Your task to perform on an android device: set default search engine in the chrome app Image 0: 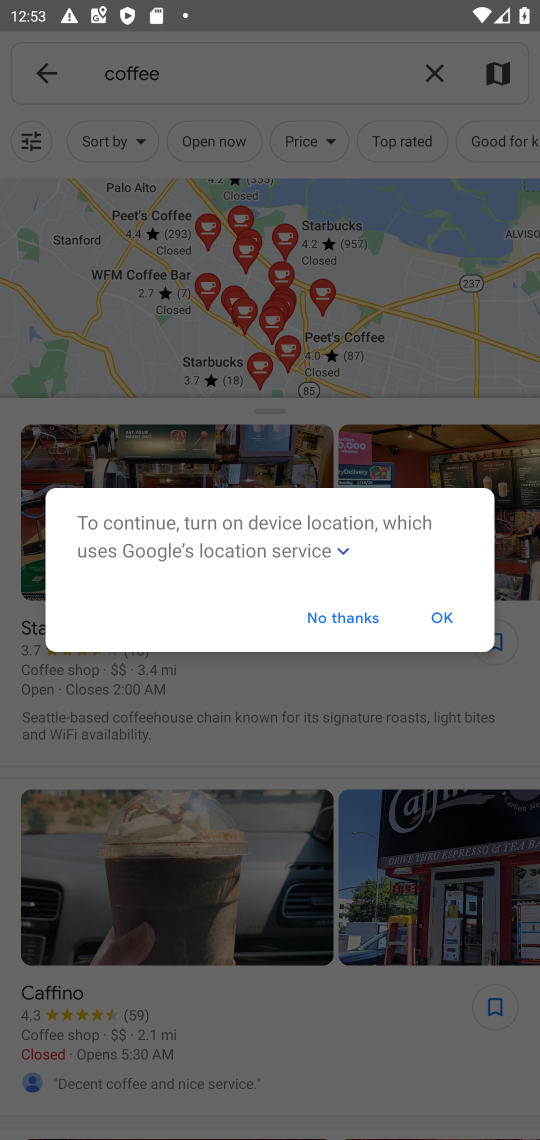
Step 0: press home button
Your task to perform on an android device: set default search engine in the chrome app Image 1: 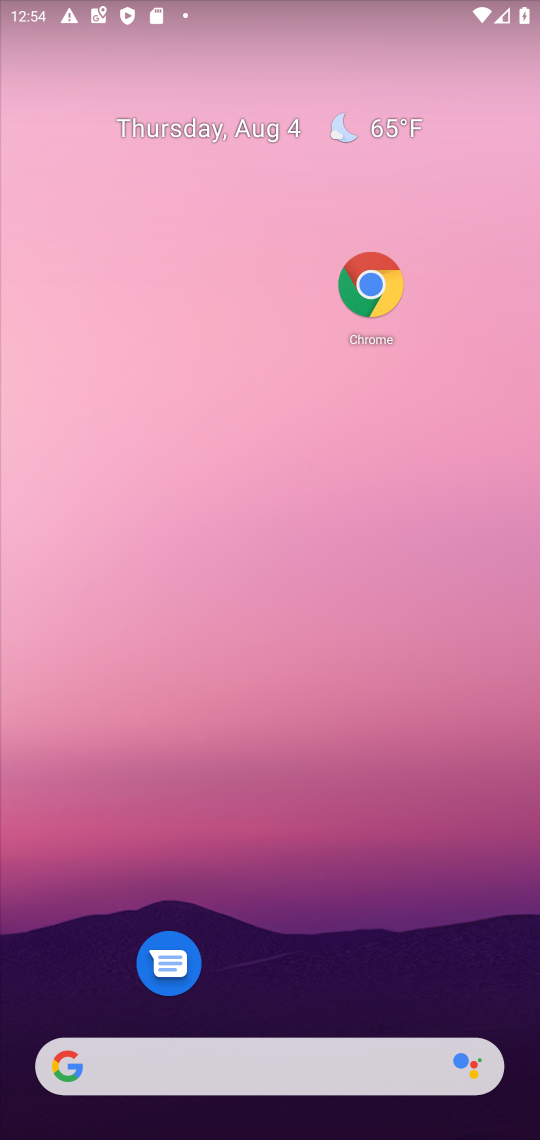
Step 1: drag from (182, 984) to (217, 372)
Your task to perform on an android device: set default search engine in the chrome app Image 2: 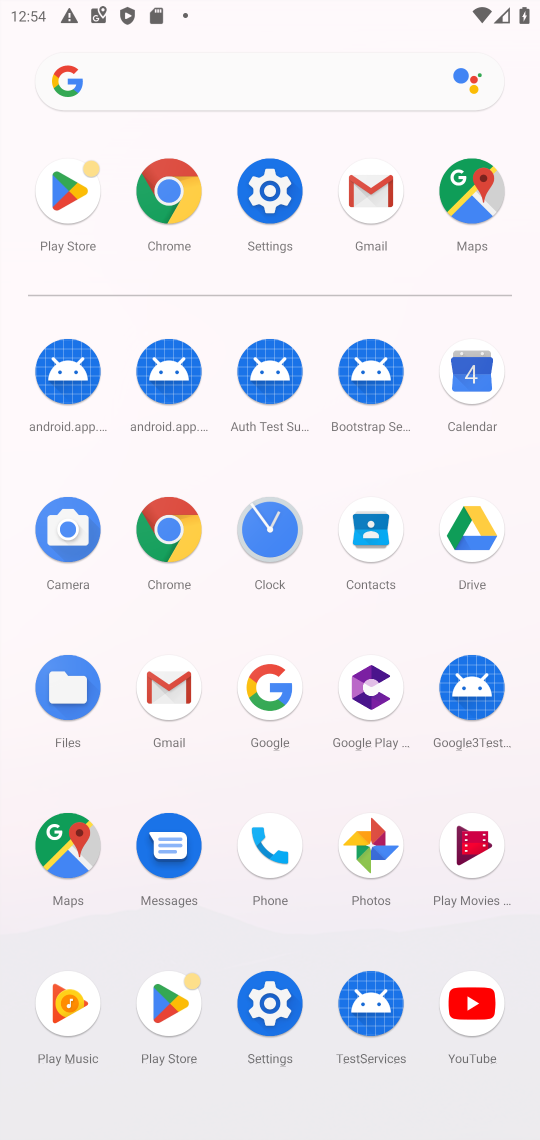
Step 2: click (195, 535)
Your task to perform on an android device: set default search engine in the chrome app Image 3: 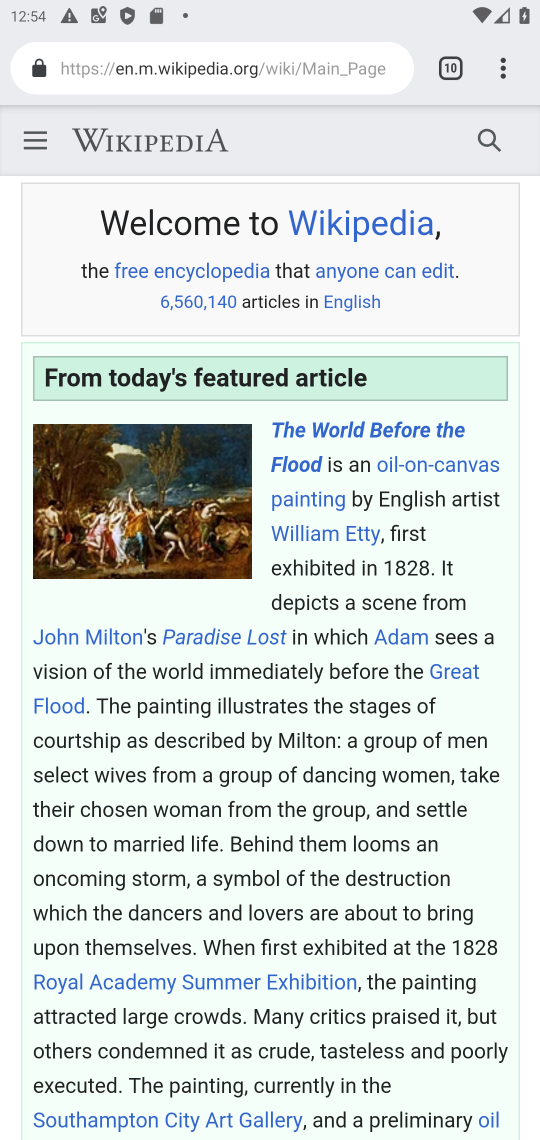
Step 3: click (494, 63)
Your task to perform on an android device: set default search engine in the chrome app Image 4: 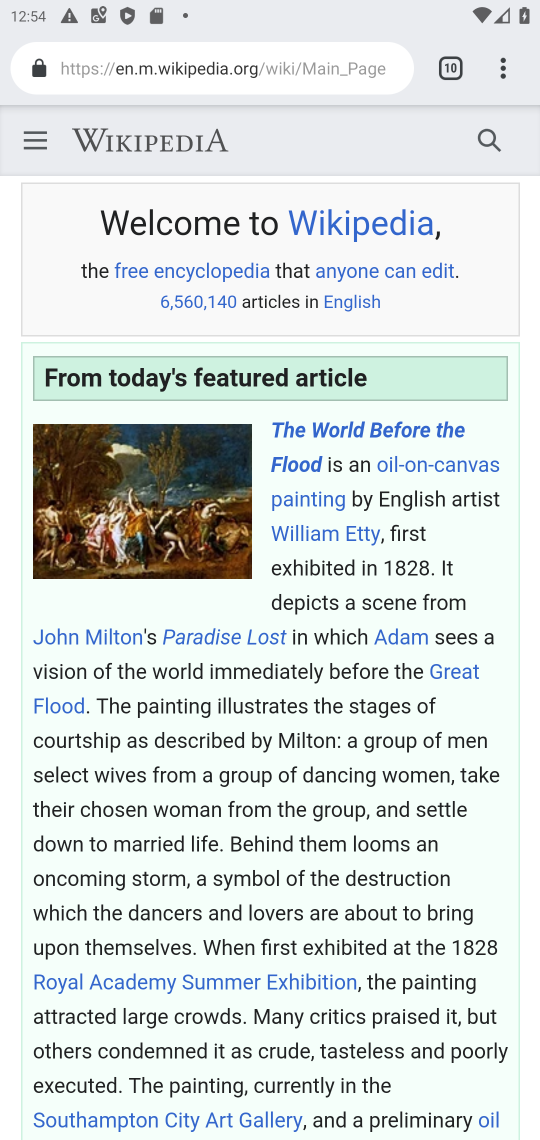
Step 4: click (495, 75)
Your task to perform on an android device: set default search engine in the chrome app Image 5: 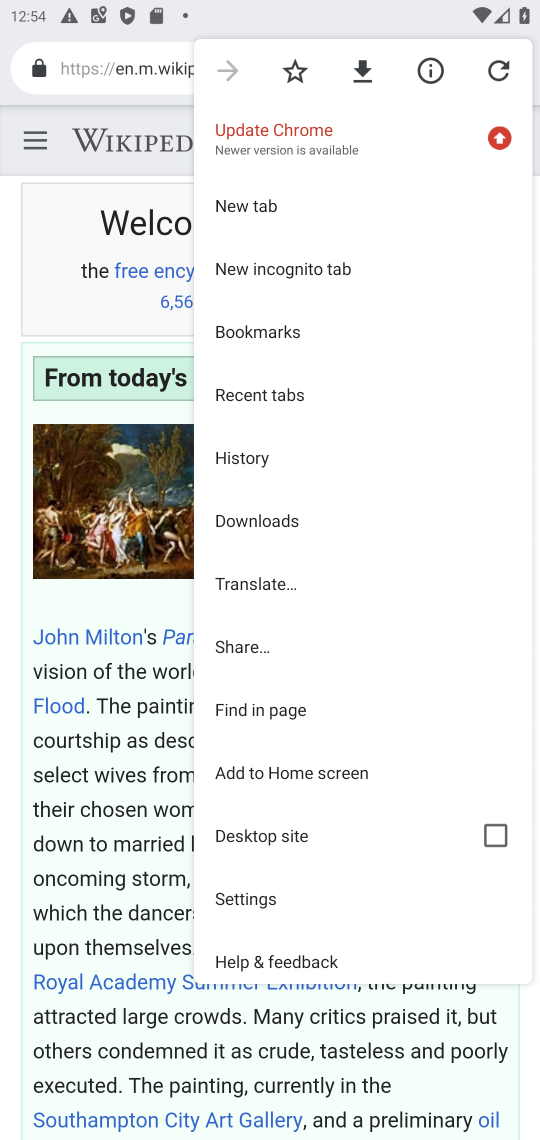
Step 5: click (272, 904)
Your task to perform on an android device: set default search engine in the chrome app Image 6: 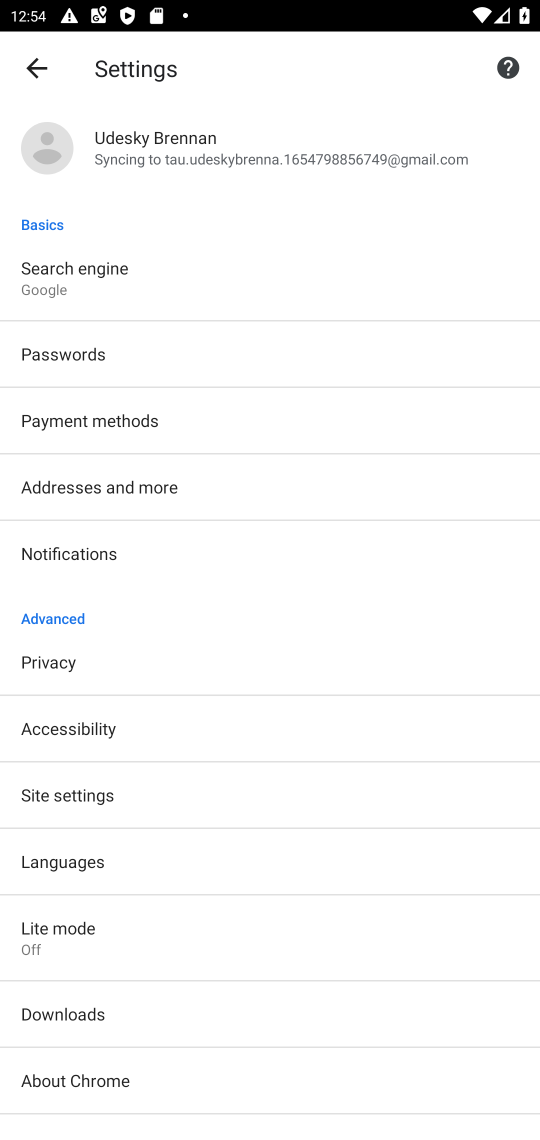
Step 6: click (84, 287)
Your task to perform on an android device: set default search engine in the chrome app Image 7: 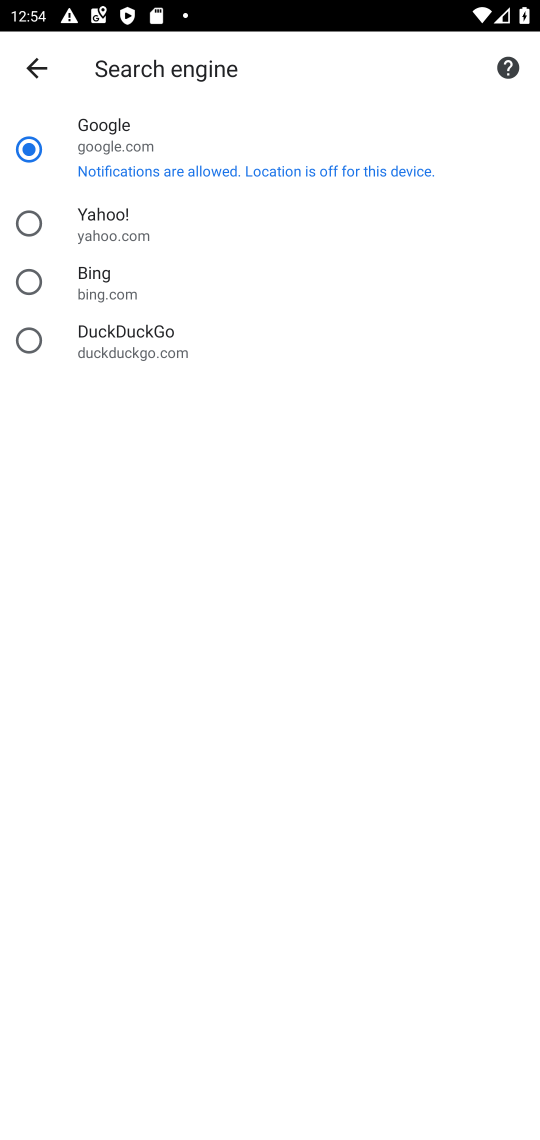
Step 7: click (101, 215)
Your task to perform on an android device: set default search engine in the chrome app Image 8: 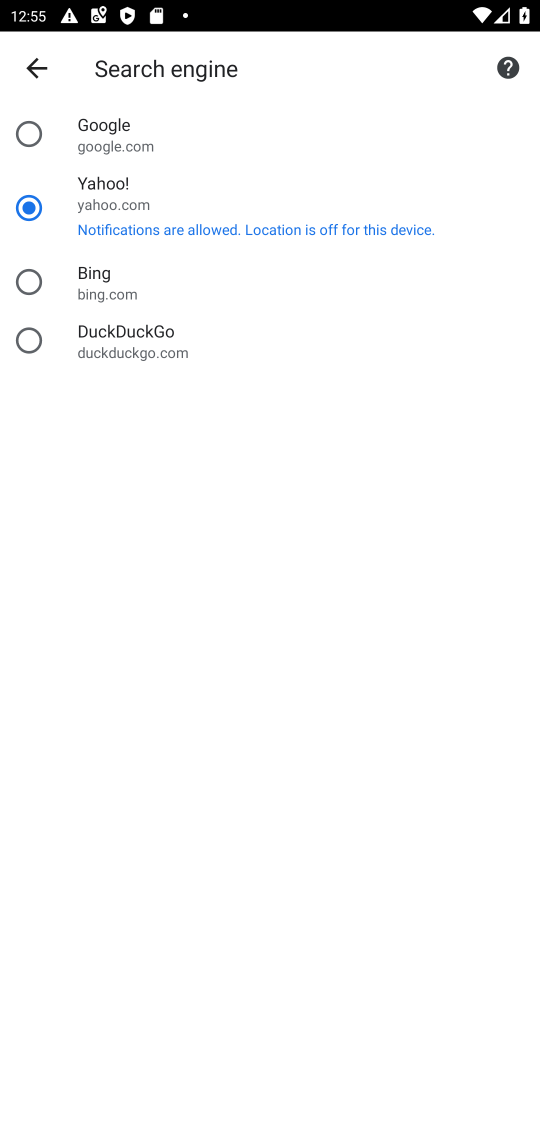
Step 8: task complete